Your task to perform on an android device: create a new album in the google photos Image 0: 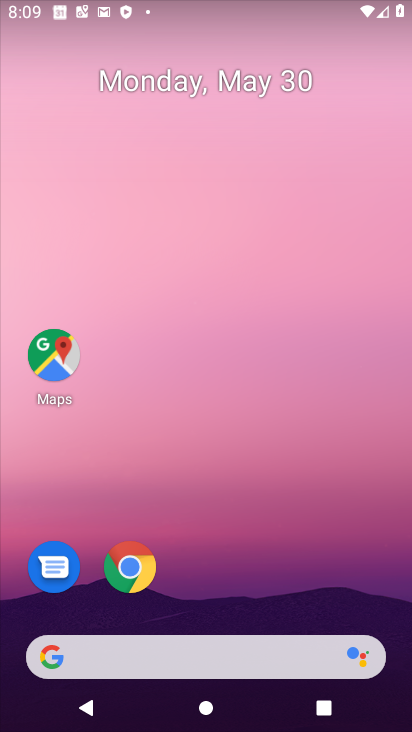
Step 0: drag from (321, 593) to (279, 8)
Your task to perform on an android device: create a new album in the google photos Image 1: 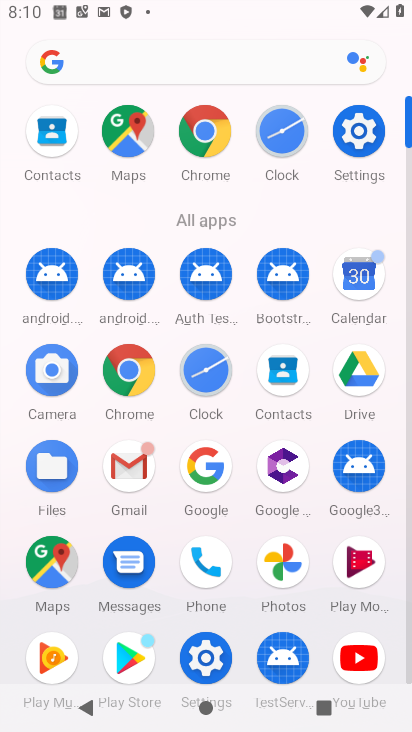
Step 1: click (270, 558)
Your task to perform on an android device: create a new album in the google photos Image 2: 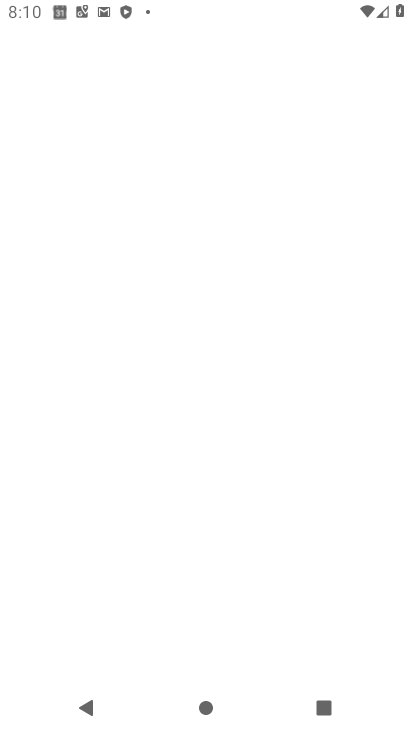
Step 2: task complete